Your task to perform on an android device: What does the iPhone 8 look like on eBay? Image 0: 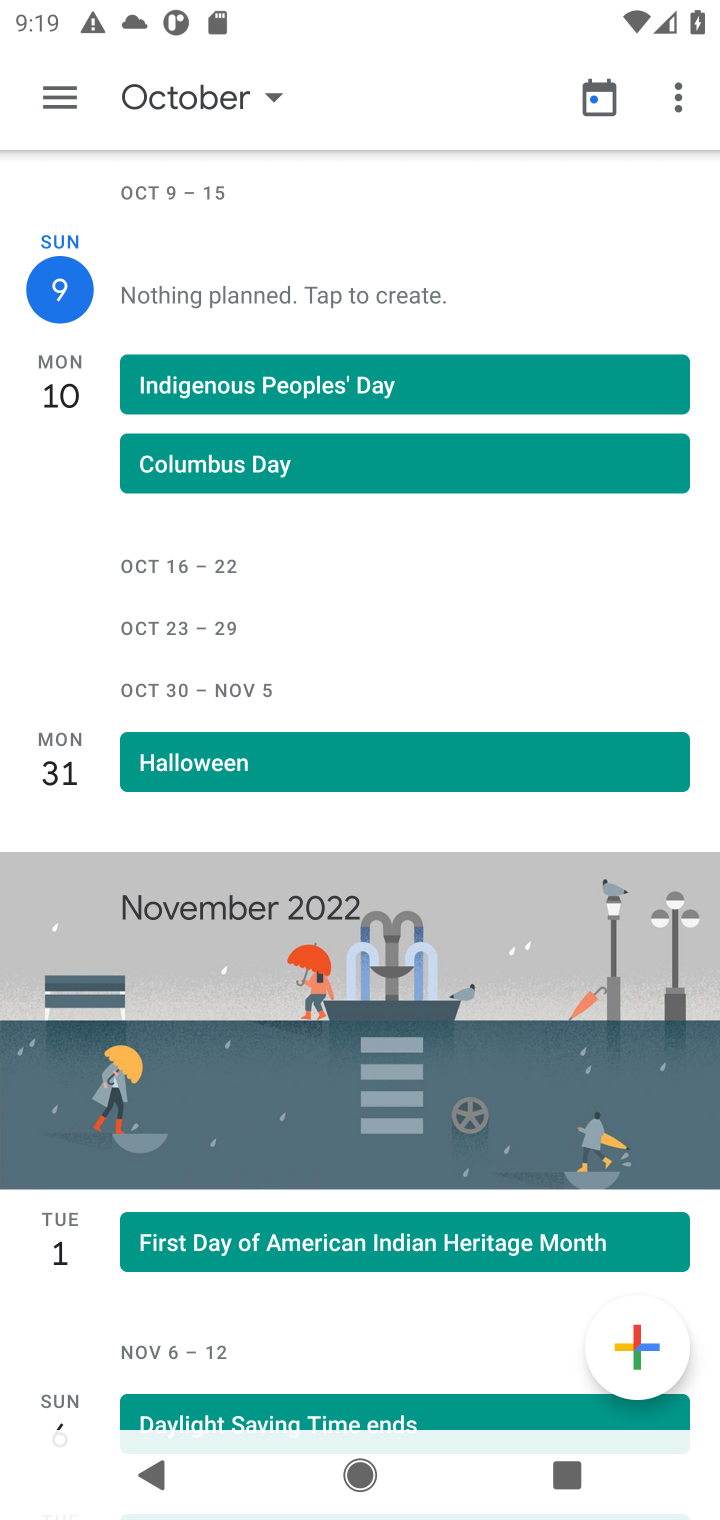
Step 0: drag from (301, 1113) to (279, 250)
Your task to perform on an android device: What does the iPhone 8 look like on eBay? Image 1: 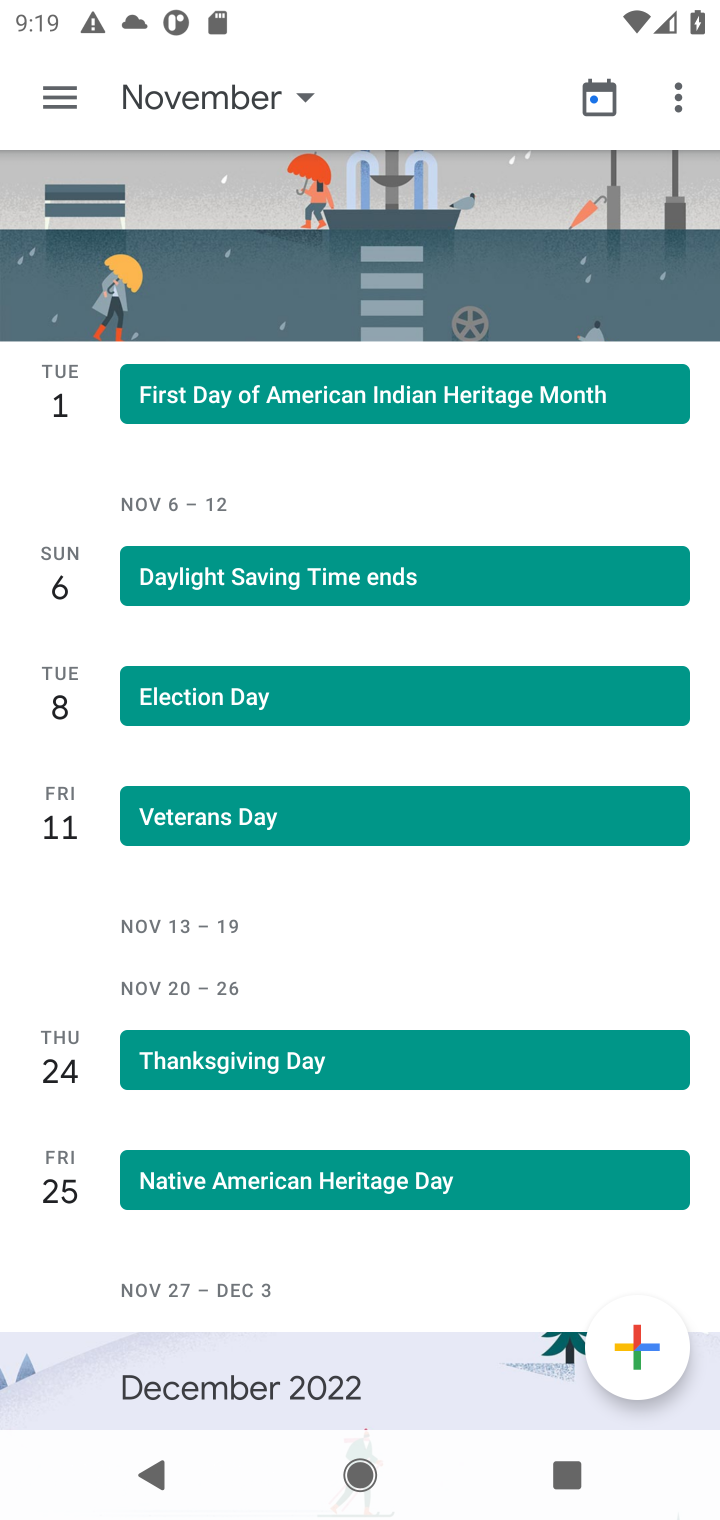
Step 1: press home button
Your task to perform on an android device: What does the iPhone 8 look like on eBay? Image 2: 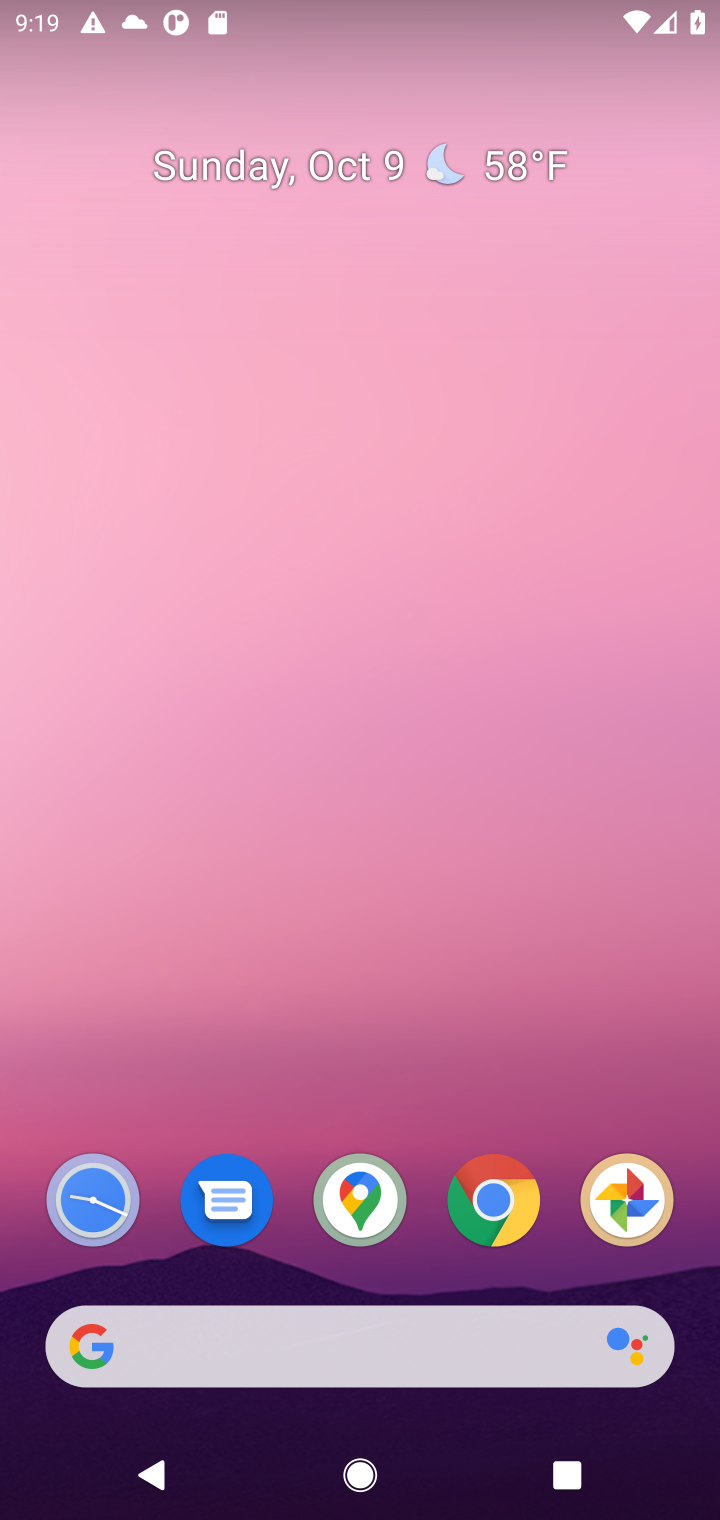
Step 2: click (503, 1205)
Your task to perform on an android device: What does the iPhone 8 look like on eBay? Image 3: 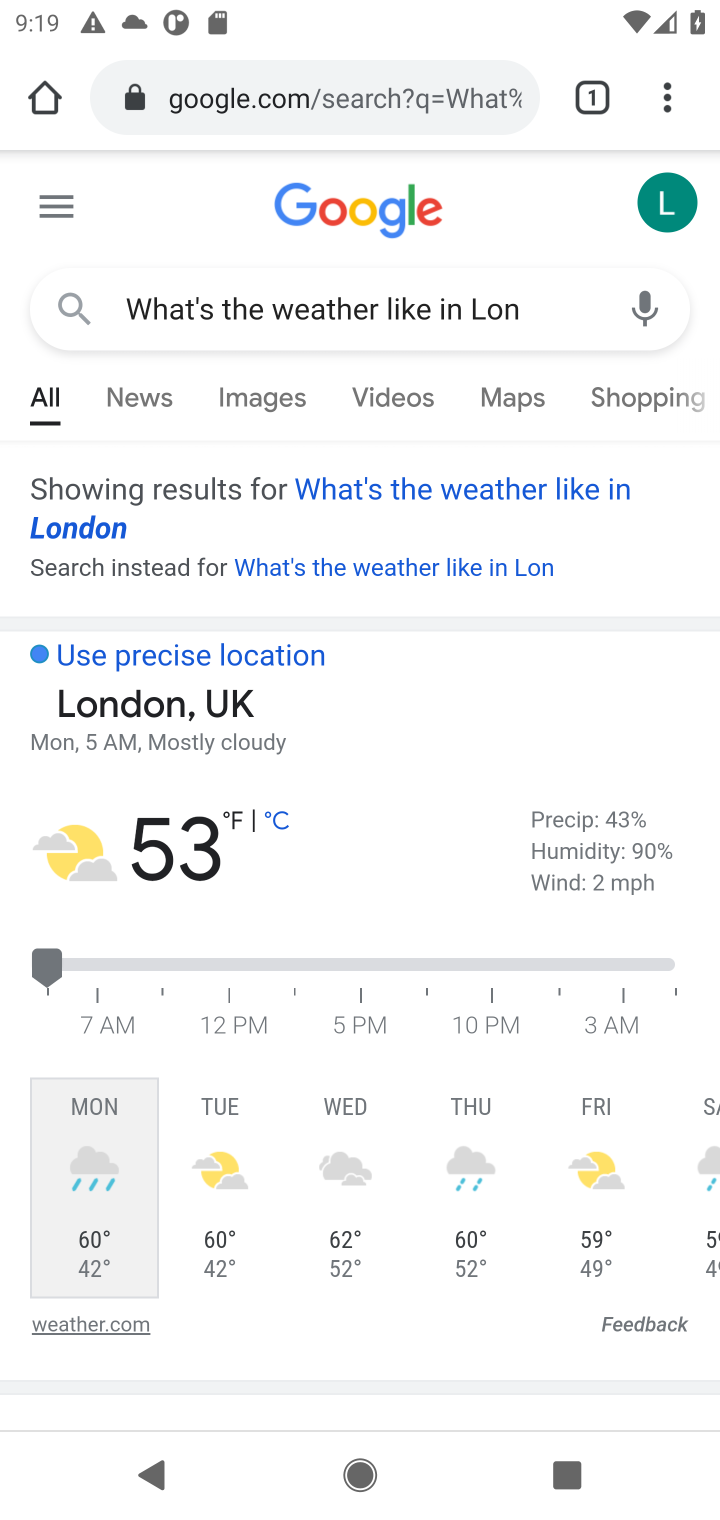
Step 3: click (317, 104)
Your task to perform on an android device: What does the iPhone 8 look like on eBay? Image 4: 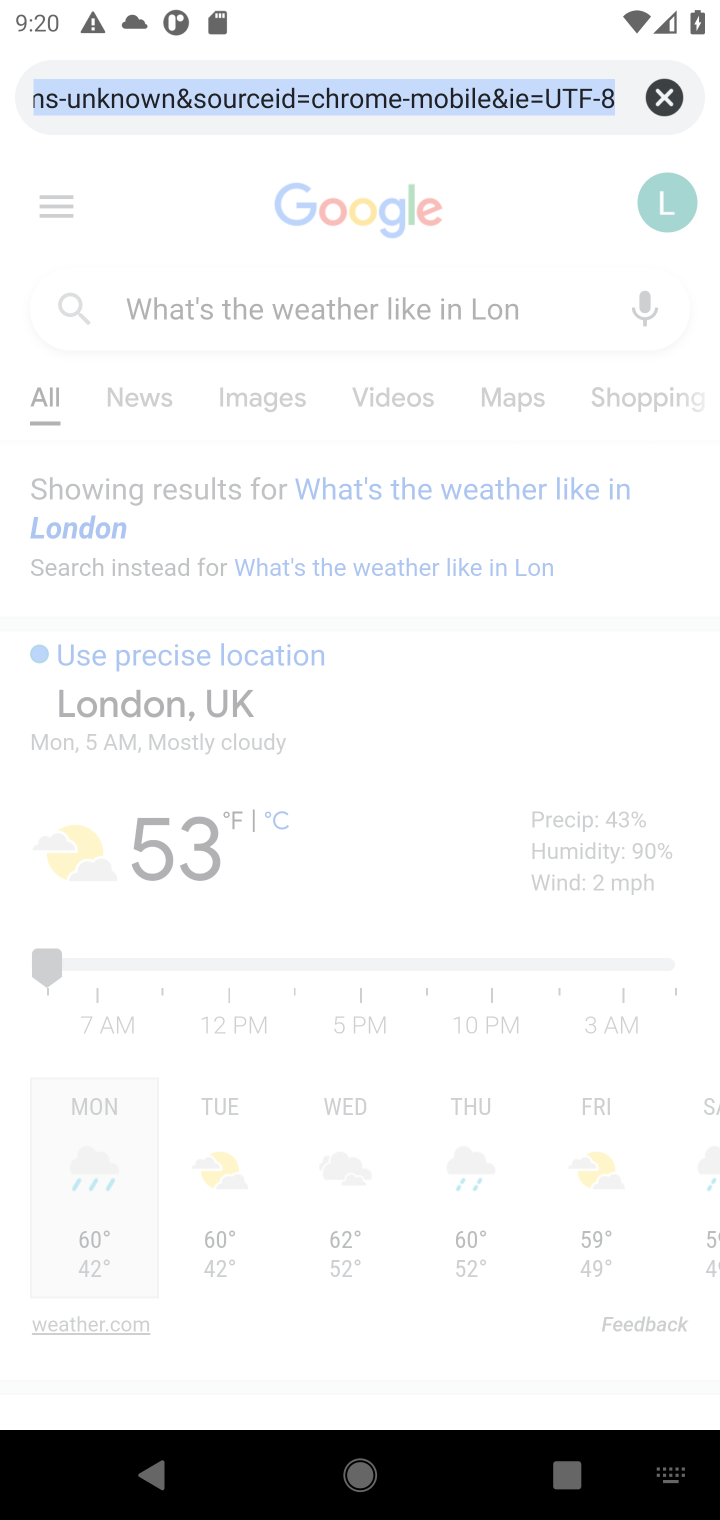
Step 4: click (662, 86)
Your task to perform on an android device: What does the iPhone 8 look like on eBay? Image 5: 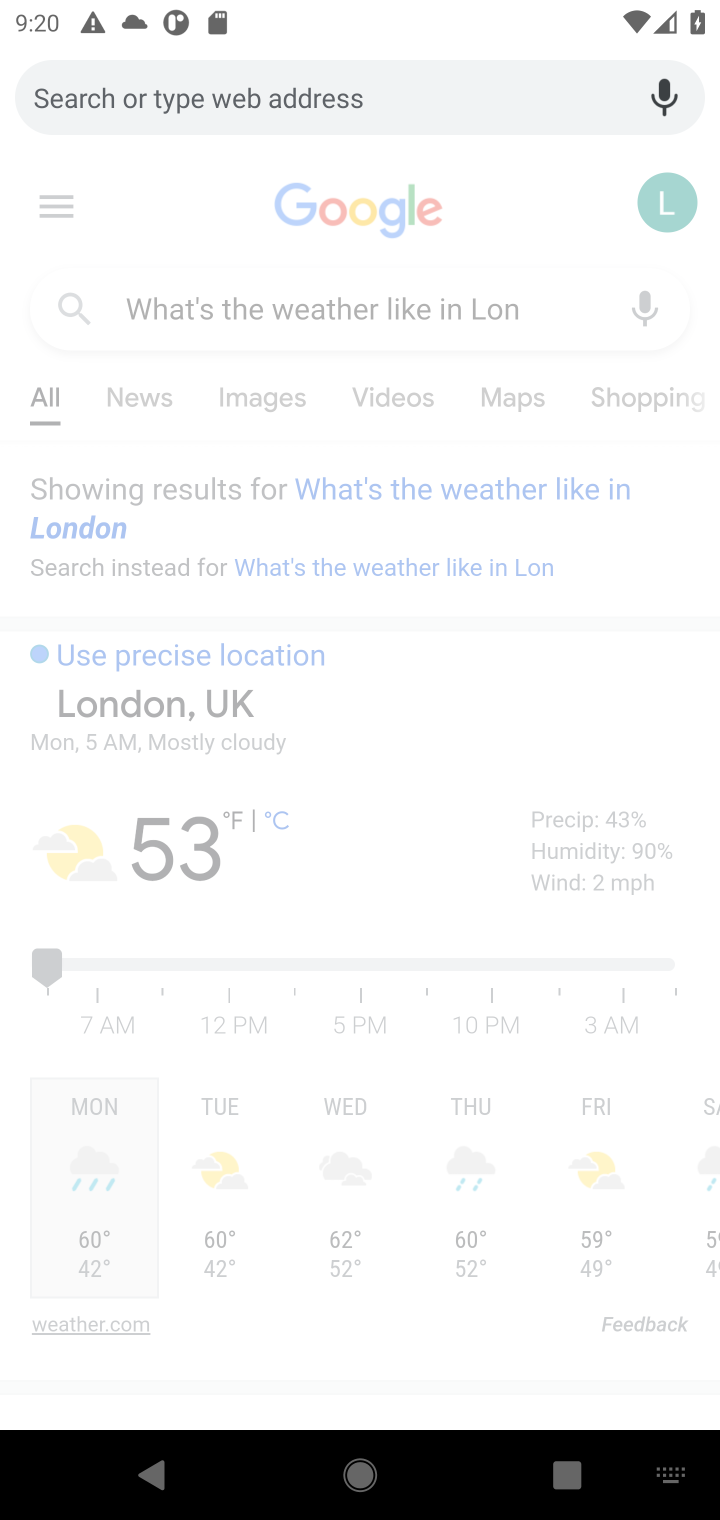
Step 5: type "What does the iPhone 8 look like on eBay?"
Your task to perform on an android device: What does the iPhone 8 look like on eBay? Image 6: 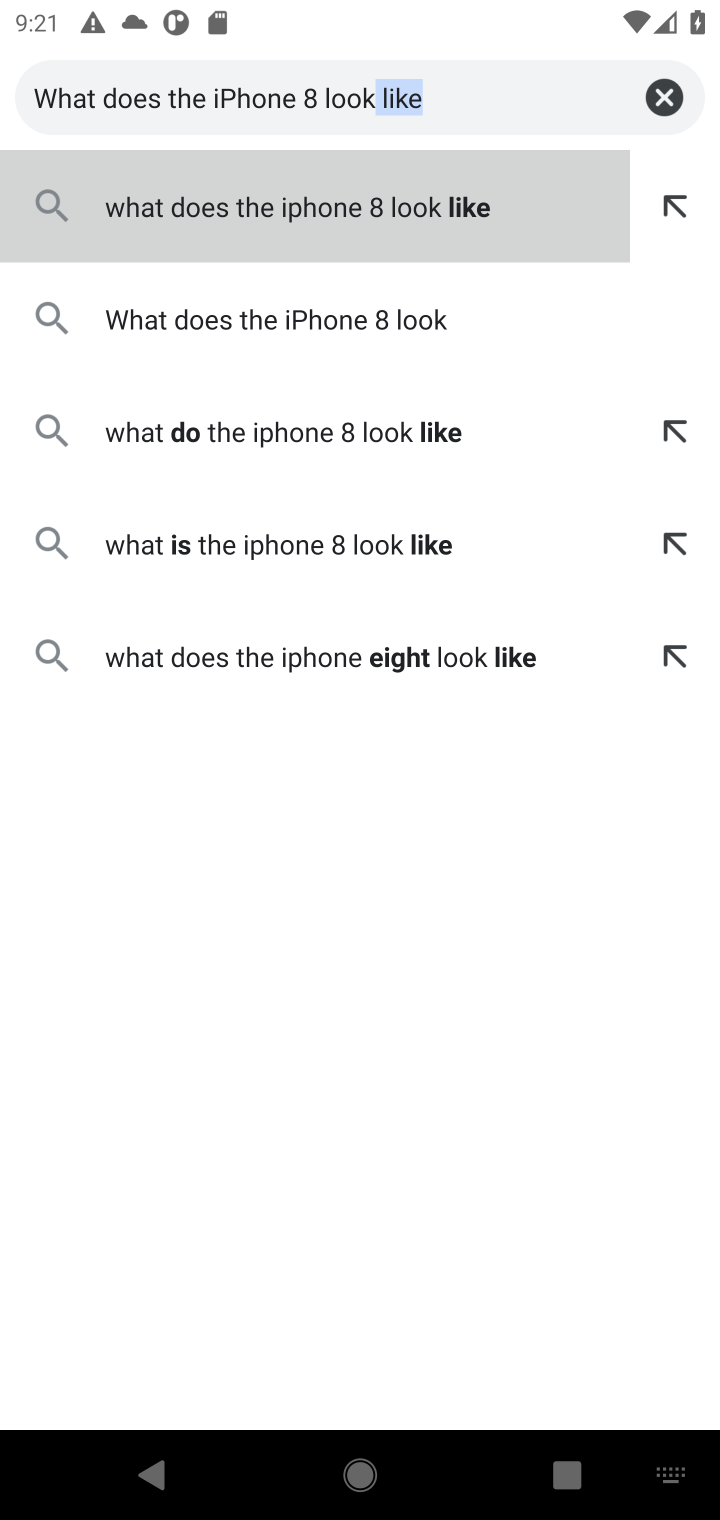
Step 6: click (280, 200)
Your task to perform on an android device: What does the iPhone 8 look like on eBay? Image 7: 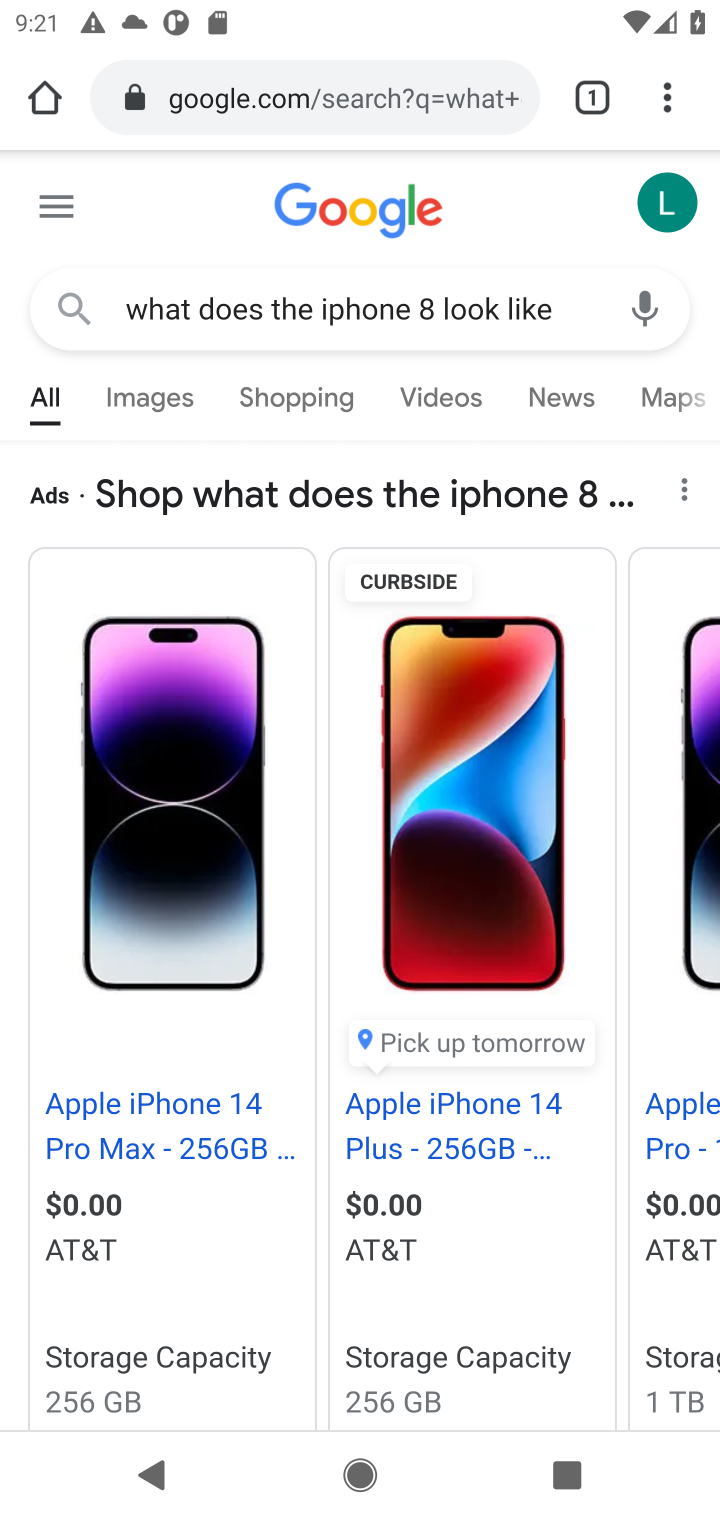
Step 7: task complete